Your task to perform on an android device: open device folders in google photos Image 0: 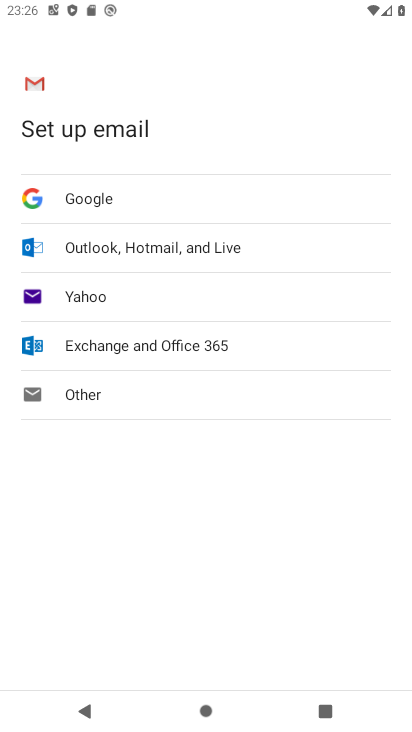
Step 0: press home button
Your task to perform on an android device: open device folders in google photos Image 1: 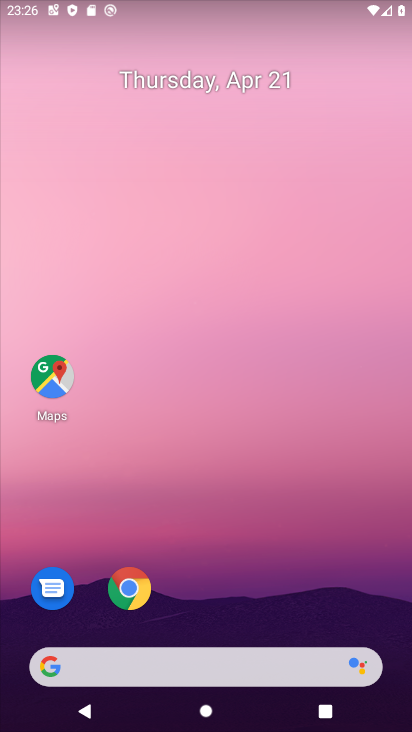
Step 1: drag from (190, 549) to (224, 14)
Your task to perform on an android device: open device folders in google photos Image 2: 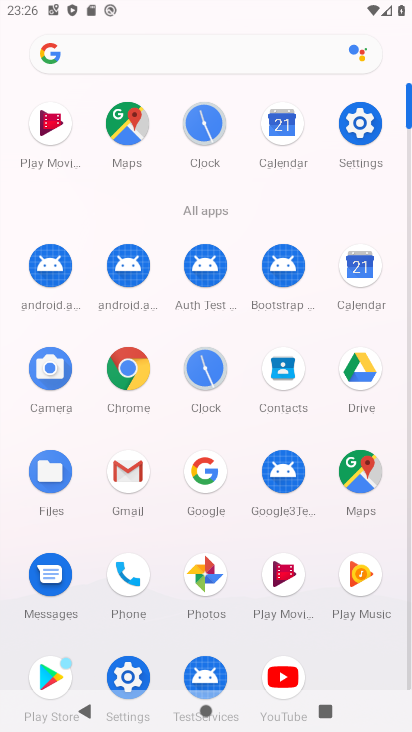
Step 2: click (227, 571)
Your task to perform on an android device: open device folders in google photos Image 3: 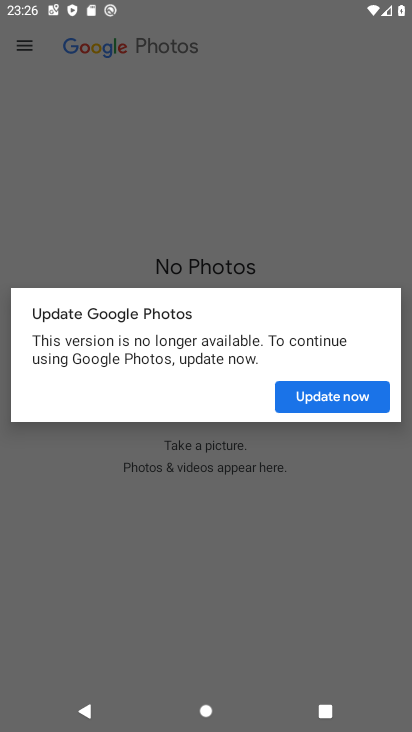
Step 3: click (311, 403)
Your task to perform on an android device: open device folders in google photos Image 4: 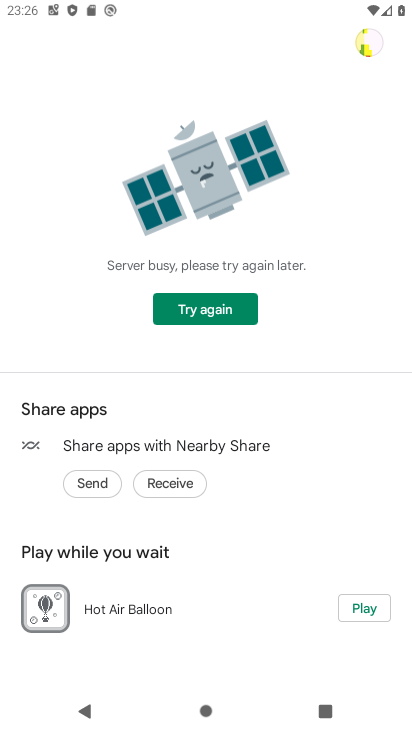
Step 4: click (211, 301)
Your task to perform on an android device: open device folders in google photos Image 5: 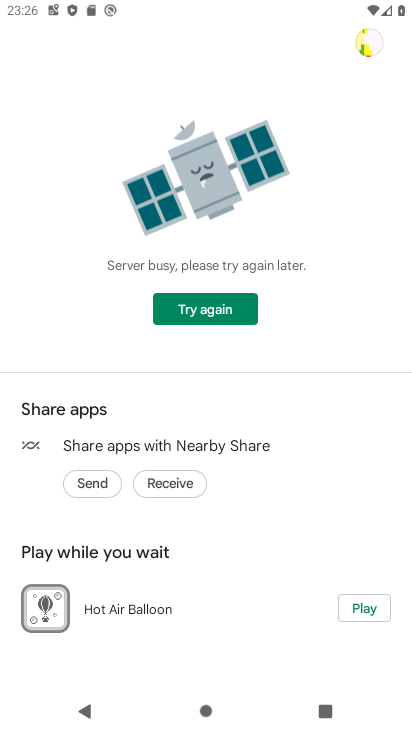
Step 5: task complete